Your task to perform on an android device: Open Youtube and go to "Your channel" Image 0: 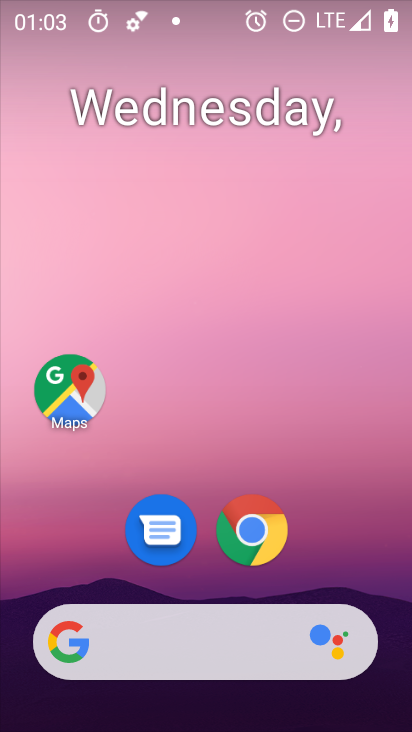
Step 0: drag from (274, 643) to (317, 45)
Your task to perform on an android device: Open Youtube and go to "Your channel" Image 1: 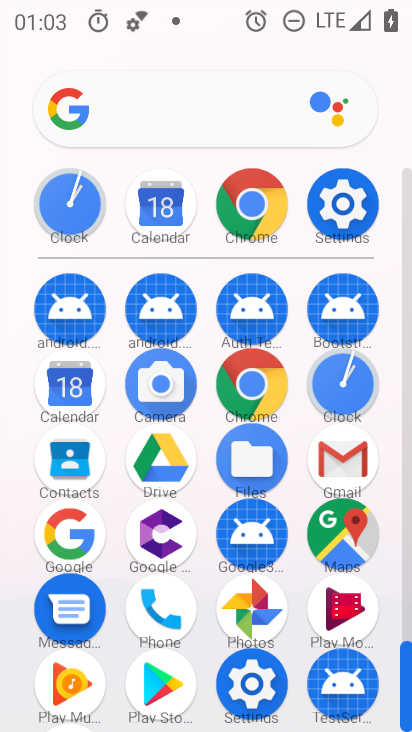
Step 1: drag from (296, 603) to (275, 188)
Your task to perform on an android device: Open Youtube and go to "Your channel" Image 2: 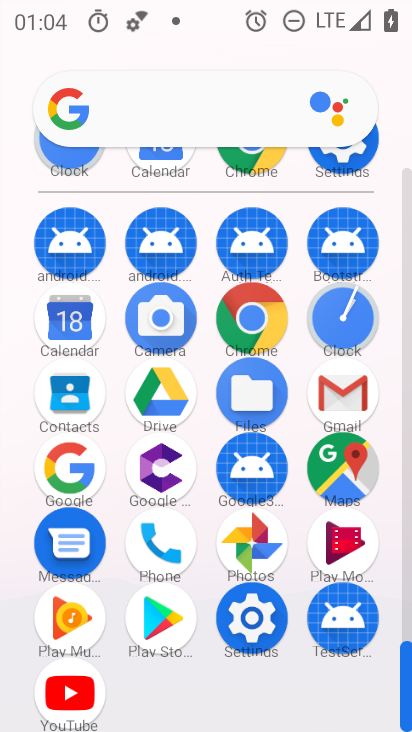
Step 2: click (77, 695)
Your task to perform on an android device: Open Youtube and go to "Your channel" Image 3: 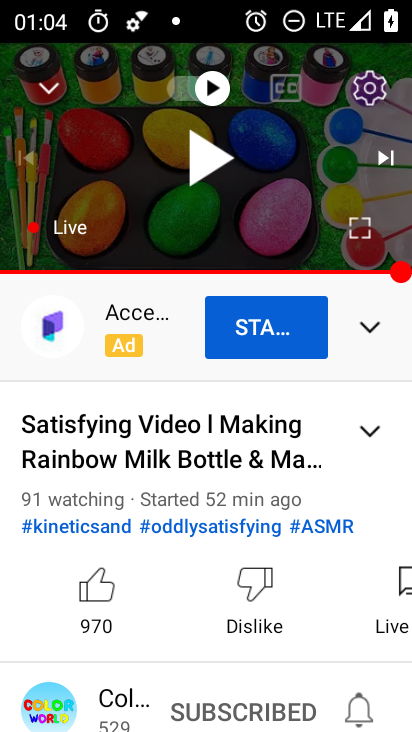
Step 3: drag from (261, 202) to (261, 624)
Your task to perform on an android device: Open Youtube and go to "Your channel" Image 4: 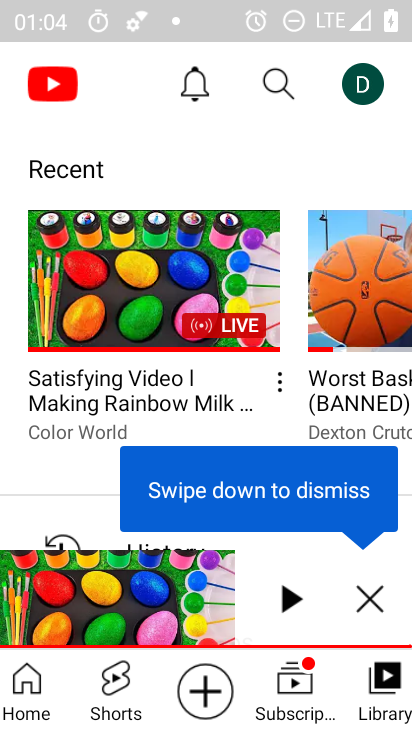
Step 4: click (358, 78)
Your task to perform on an android device: Open Youtube and go to "Your channel" Image 5: 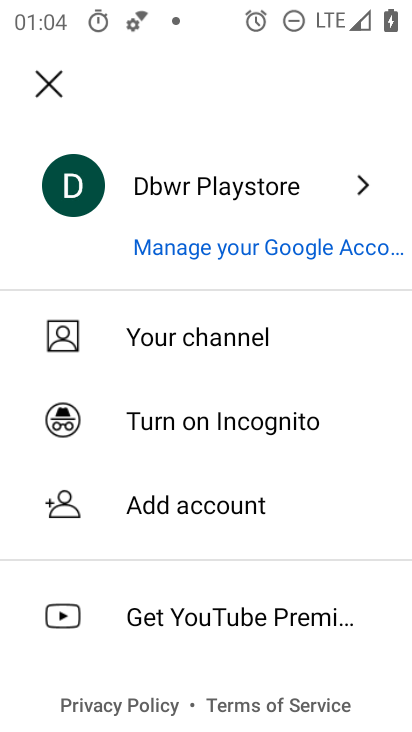
Step 5: click (201, 351)
Your task to perform on an android device: Open Youtube and go to "Your channel" Image 6: 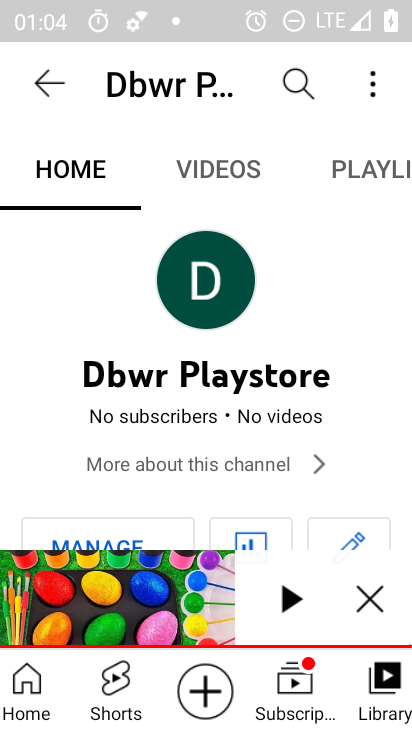
Step 6: task complete